Your task to perform on an android device: turn notification dots off Image 0: 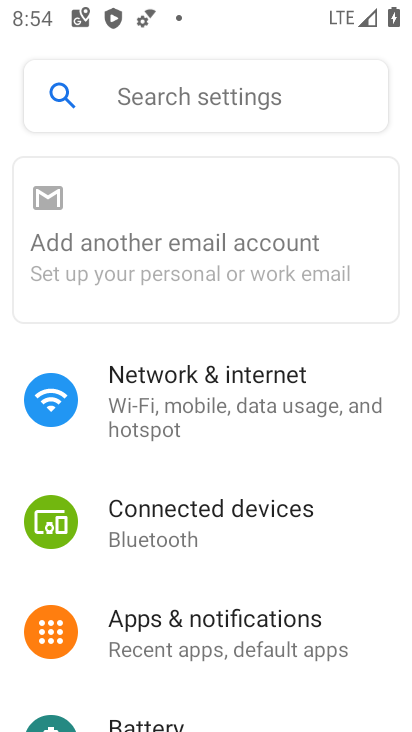
Step 0: drag from (228, 593) to (284, 217)
Your task to perform on an android device: turn notification dots off Image 1: 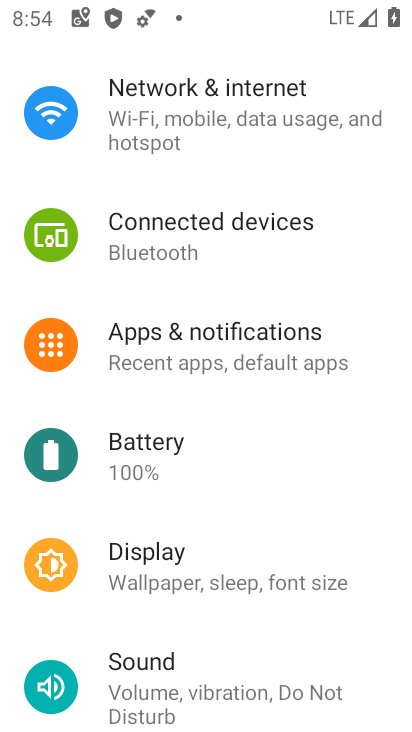
Step 1: click (191, 334)
Your task to perform on an android device: turn notification dots off Image 2: 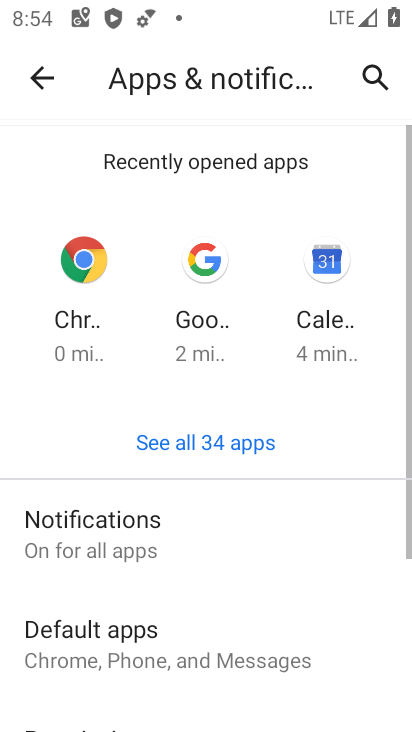
Step 2: drag from (233, 598) to (252, 276)
Your task to perform on an android device: turn notification dots off Image 3: 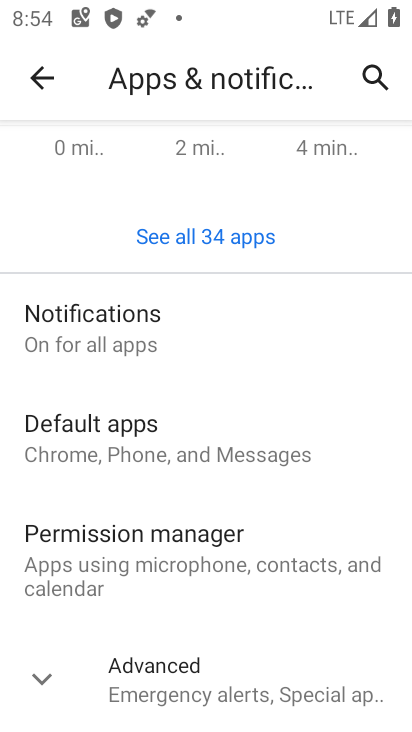
Step 3: click (182, 340)
Your task to perform on an android device: turn notification dots off Image 4: 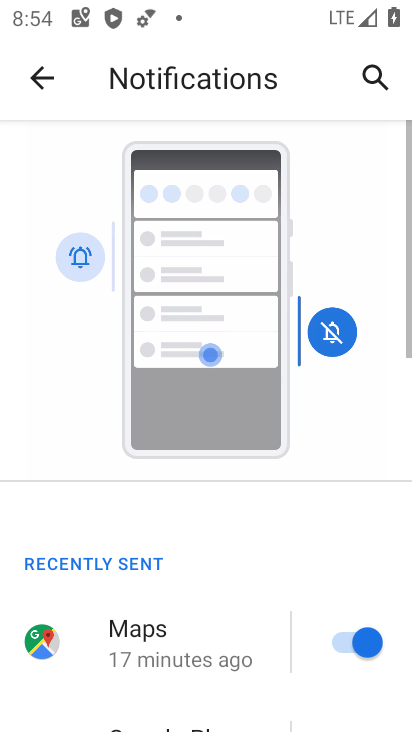
Step 4: drag from (255, 568) to (268, 118)
Your task to perform on an android device: turn notification dots off Image 5: 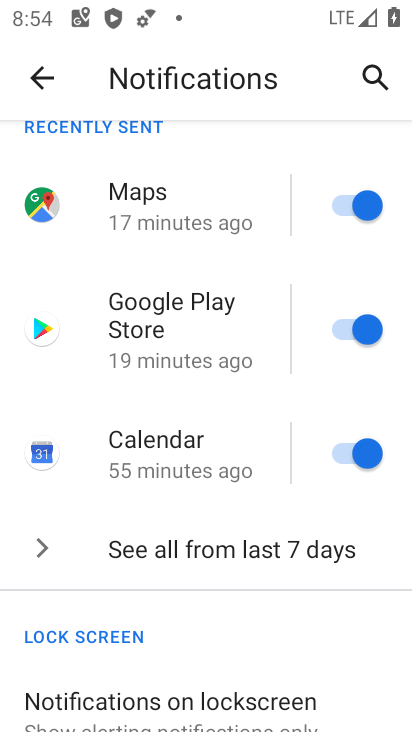
Step 5: drag from (269, 523) to (268, 72)
Your task to perform on an android device: turn notification dots off Image 6: 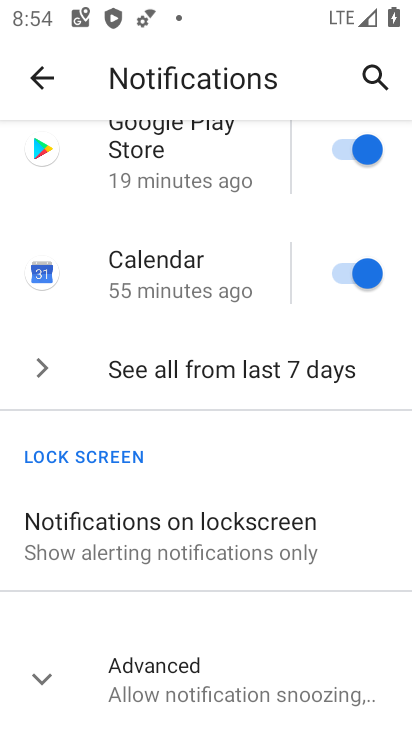
Step 6: click (215, 696)
Your task to perform on an android device: turn notification dots off Image 7: 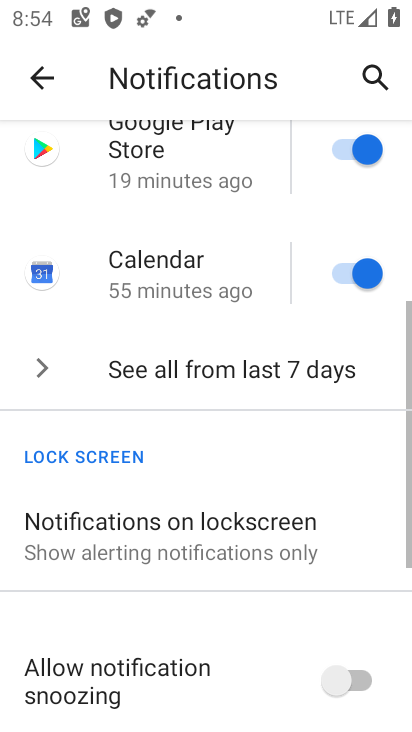
Step 7: drag from (235, 643) to (183, 198)
Your task to perform on an android device: turn notification dots off Image 8: 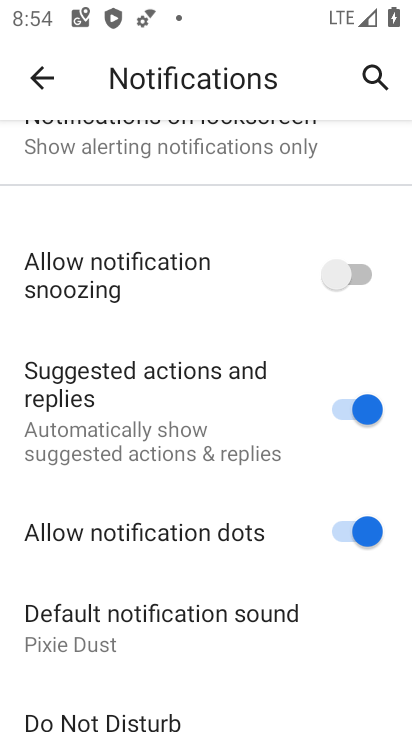
Step 8: drag from (322, 594) to (323, 253)
Your task to perform on an android device: turn notification dots off Image 9: 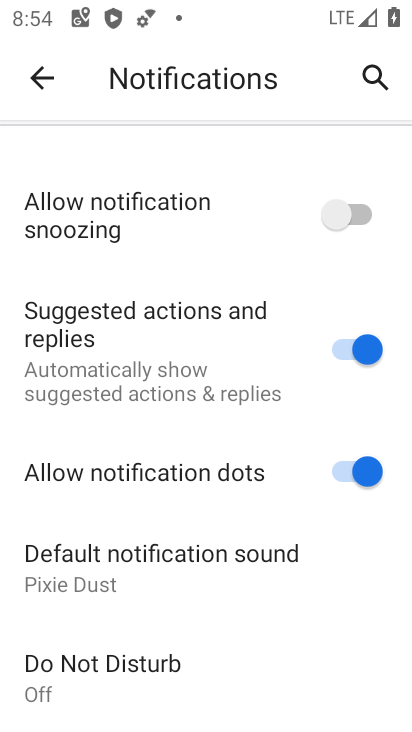
Step 9: click (356, 470)
Your task to perform on an android device: turn notification dots off Image 10: 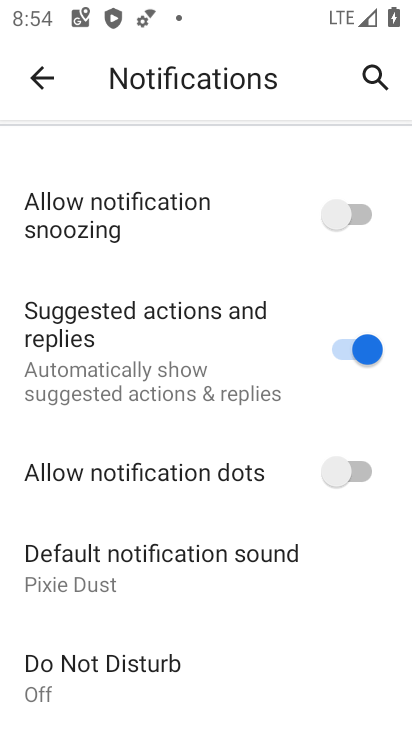
Step 10: task complete